Your task to perform on an android device: Open Wikipedia Image 0: 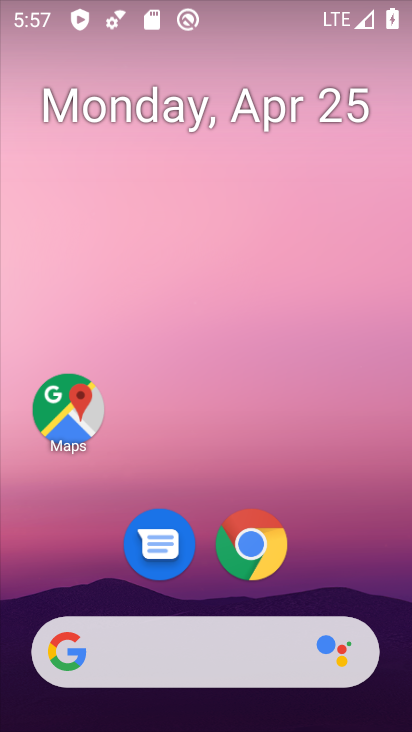
Step 0: drag from (306, 551) to (276, 409)
Your task to perform on an android device: Open Wikipedia Image 1: 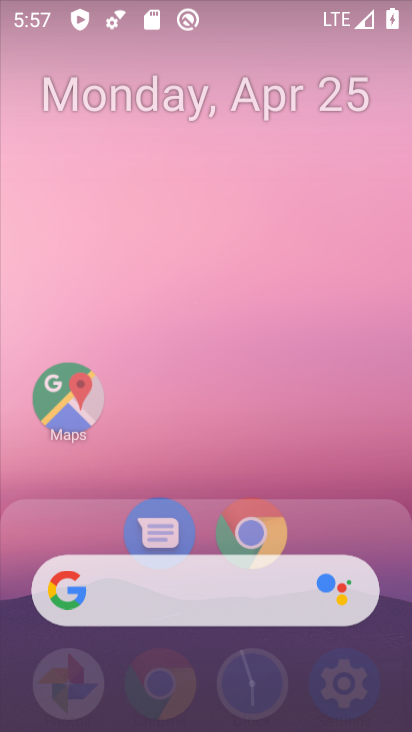
Step 1: click (261, 219)
Your task to perform on an android device: Open Wikipedia Image 2: 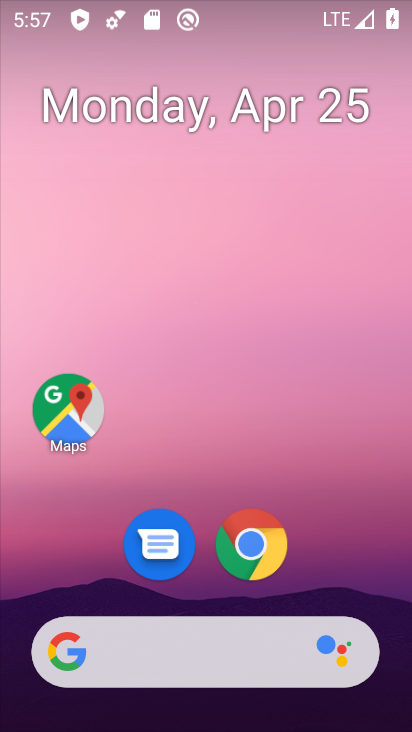
Step 2: click (249, 540)
Your task to perform on an android device: Open Wikipedia Image 3: 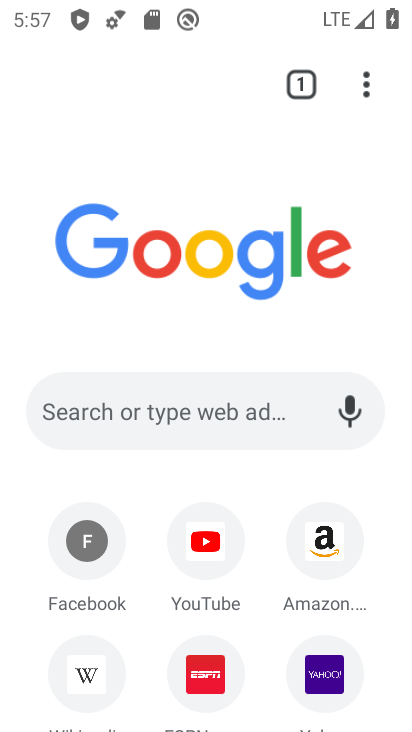
Step 3: click (80, 683)
Your task to perform on an android device: Open Wikipedia Image 4: 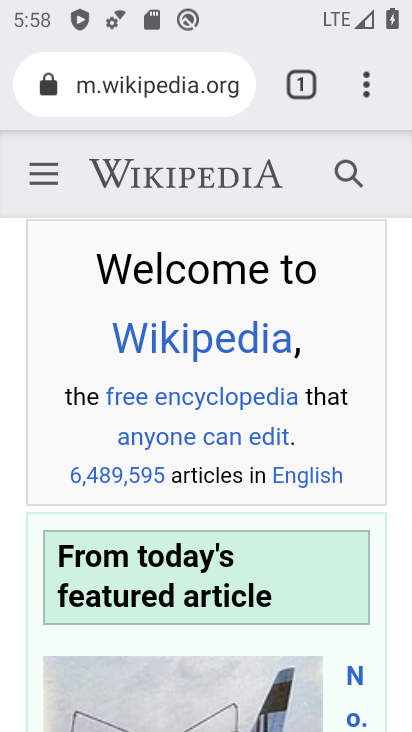
Step 4: task complete